Your task to perform on an android device: turn notification dots off Image 0: 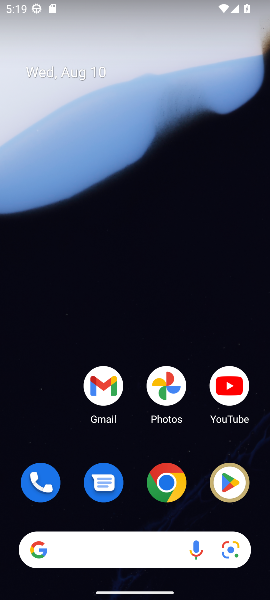
Step 0: drag from (52, 426) to (79, 33)
Your task to perform on an android device: turn notification dots off Image 1: 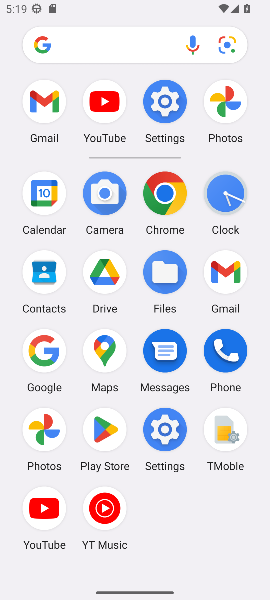
Step 1: click (164, 103)
Your task to perform on an android device: turn notification dots off Image 2: 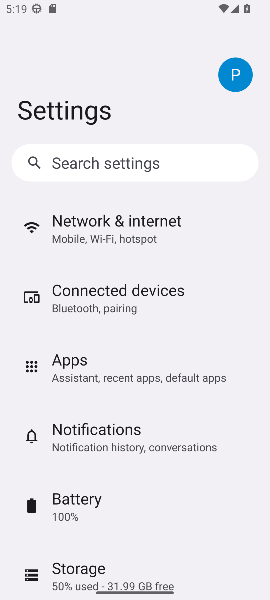
Step 2: click (138, 439)
Your task to perform on an android device: turn notification dots off Image 3: 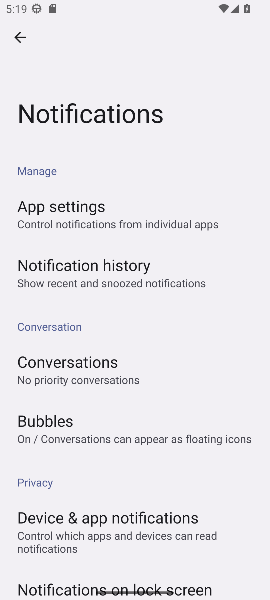
Step 3: task complete